Your task to perform on an android device: turn pop-ups on in chrome Image 0: 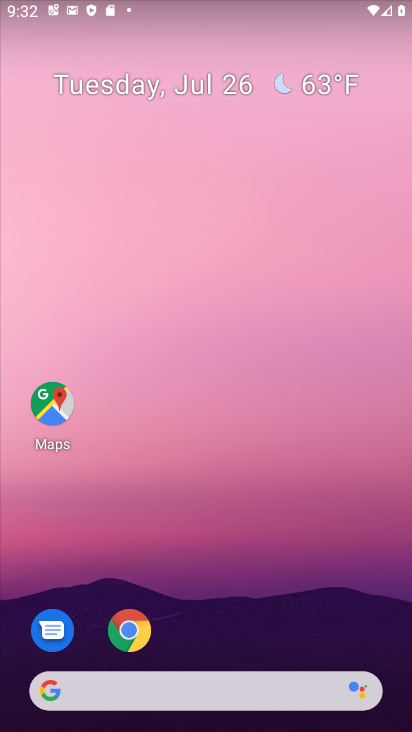
Step 0: press home button
Your task to perform on an android device: turn pop-ups on in chrome Image 1: 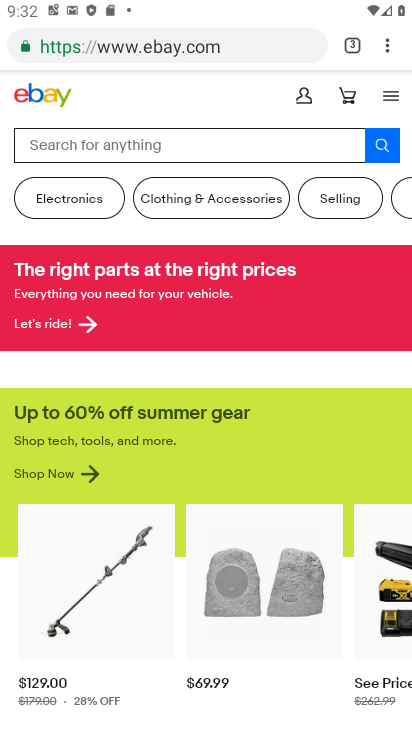
Step 1: drag from (229, 545) to (241, 72)
Your task to perform on an android device: turn pop-ups on in chrome Image 2: 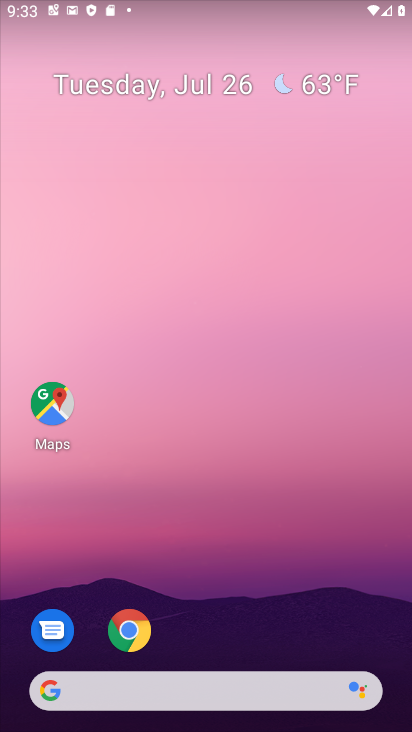
Step 2: click (125, 622)
Your task to perform on an android device: turn pop-ups on in chrome Image 3: 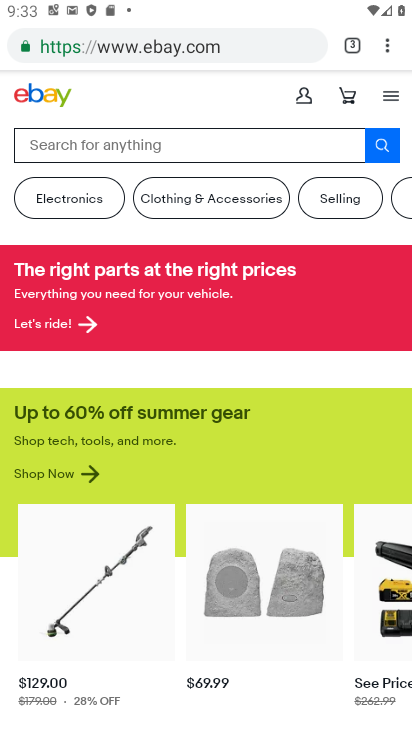
Step 3: click (383, 39)
Your task to perform on an android device: turn pop-ups on in chrome Image 4: 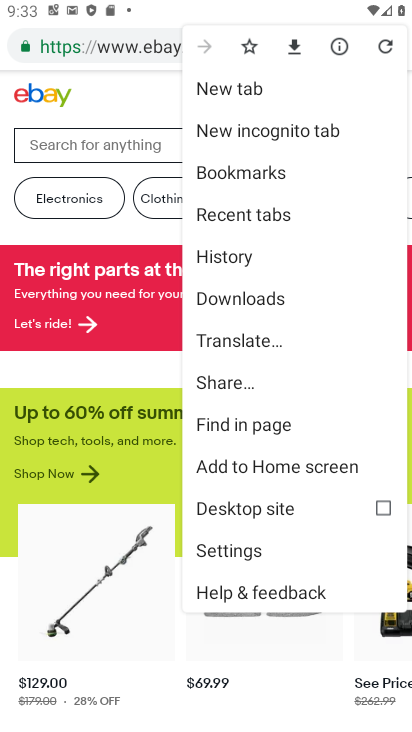
Step 4: click (265, 545)
Your task to perform on an android device: turn pop-ups on in chrome Image 5: 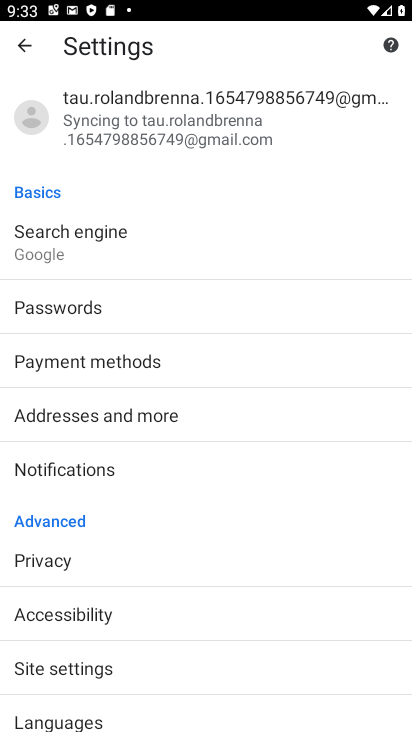
Step 5: click (121, 663)
Your task to perform on an android device: turn pop-ups on in chrome Image 6: 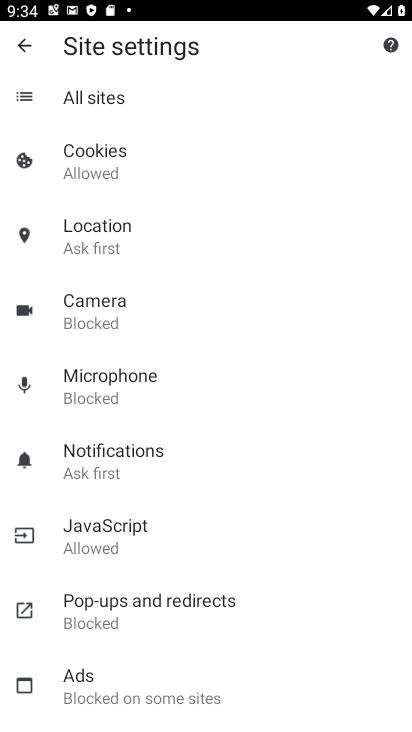
Step 6: click (134, 610)
Your task to perform on an android device: turn pop-ups on in chrome Image 7: 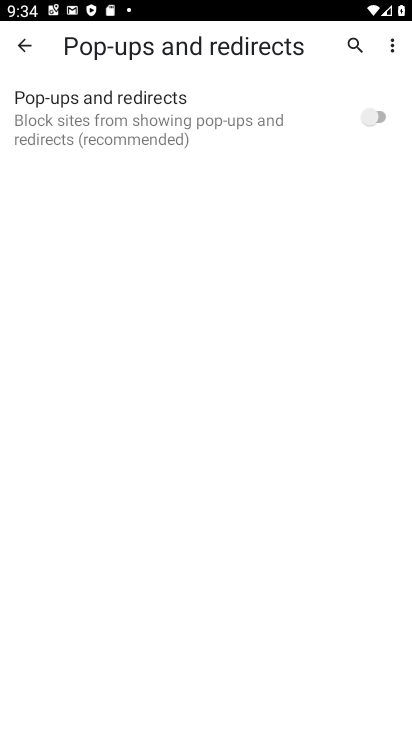
Step 7: click (380, 109)
Your task to perform on an android device: turn pop-ups on in chrome Image 8: 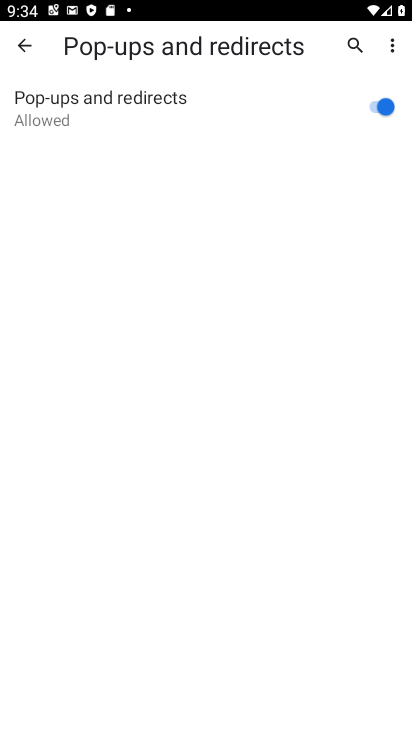
Step 8: task complete